Your task to perform on an android device: see sites visited before in the chrome app Image 0: 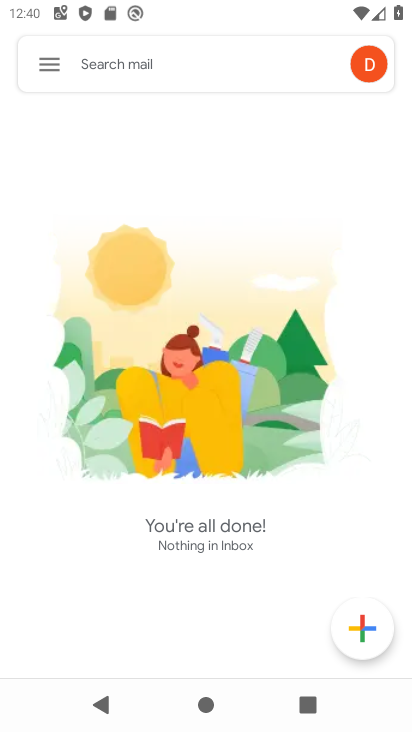
Step 0: press home button
Your task to perform on an android device: see sites visited before in the chrome app Image 1: 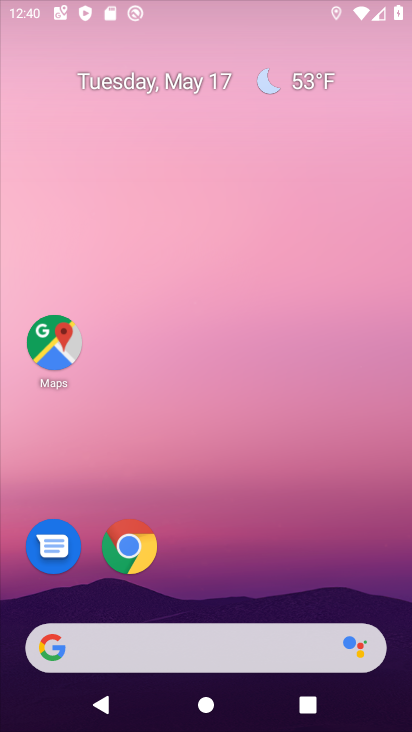
Step 1: click (226, 629)
Your task to perform on an android device: see sites visited before in the chrome app Image 2: 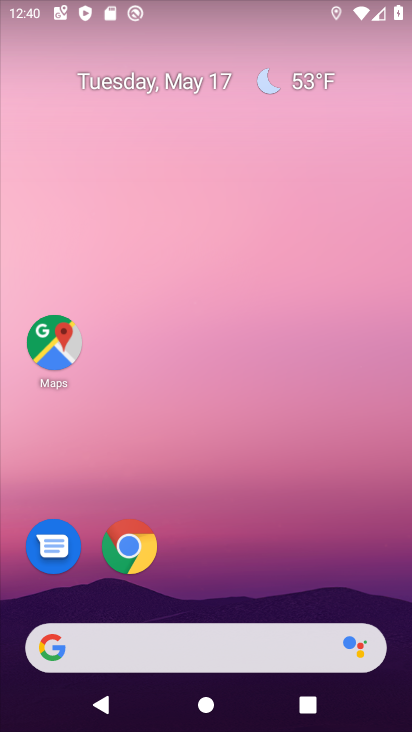
Step 2: click (141, 534)
Your task to perform on an android device: see sites visited before in the chrome app Image 3: 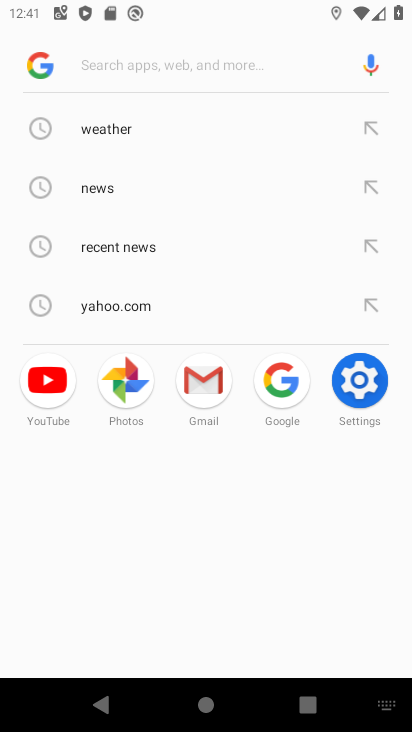
Step 3: press back button
Your task to perform on an android device: see sites visited before in the chrome app Image 4: 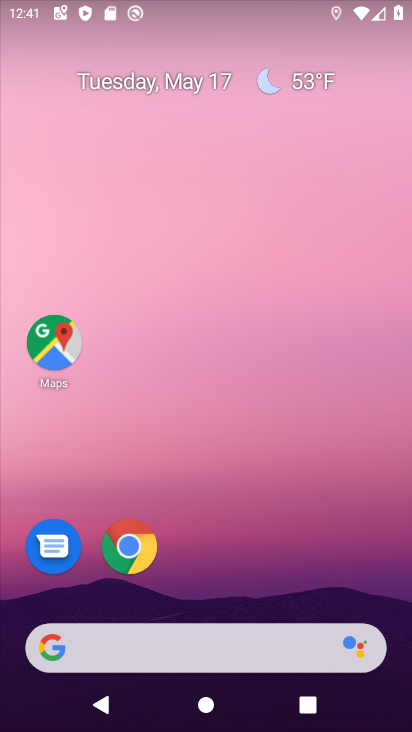
Step 4: click (136, 535)
Your task to perform on an android device: see sites visited before in the chrome app Image 5: 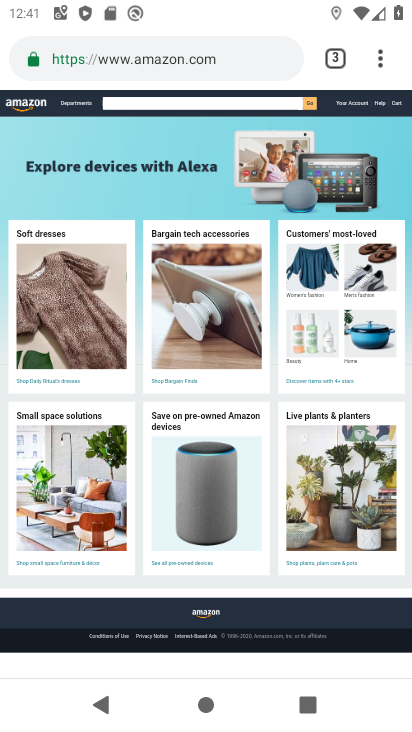
Step 5: task complete